Your task to perform on an android device: remove spam from my inbox in the gmail app Image 0: 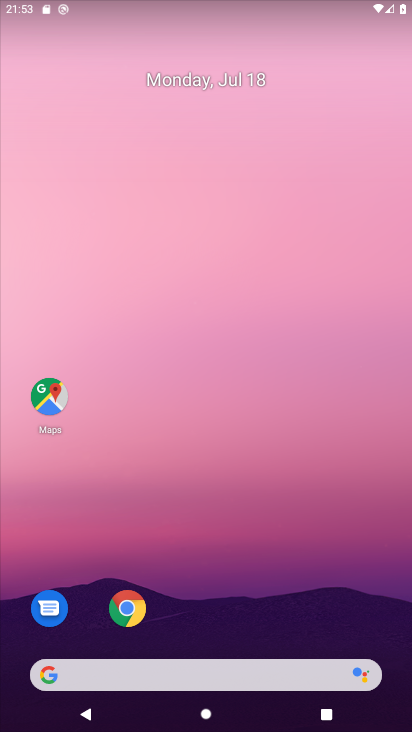
Step 0: drag from (157, 631) to (171, 186)
Your task to perform on an android device: remove spam from my inbox in the gmail app Image 1: 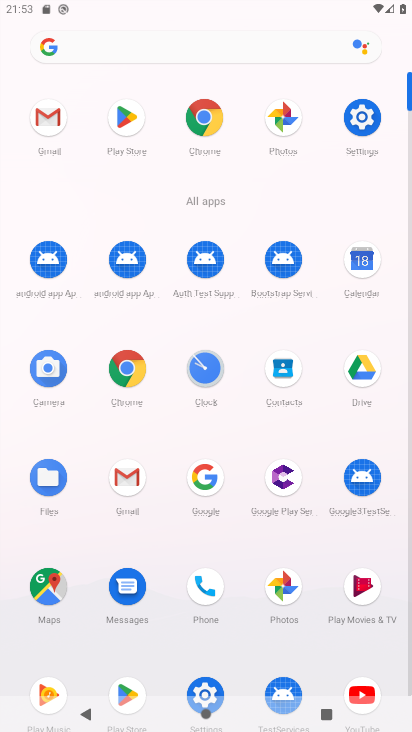
Step 1: click (122, 486)
Your task to perform on an android device: remove spam from my inbox in the gmail app Image 2: 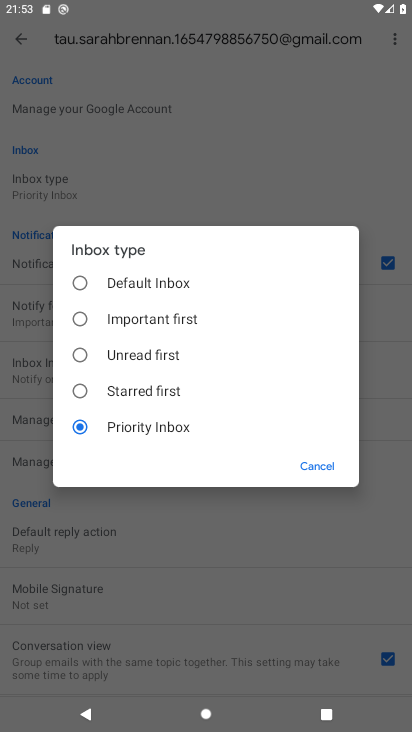
Step 2: press back button
Your task to perform on an android device: remove spam from my inbox in the gmail app Image 3: 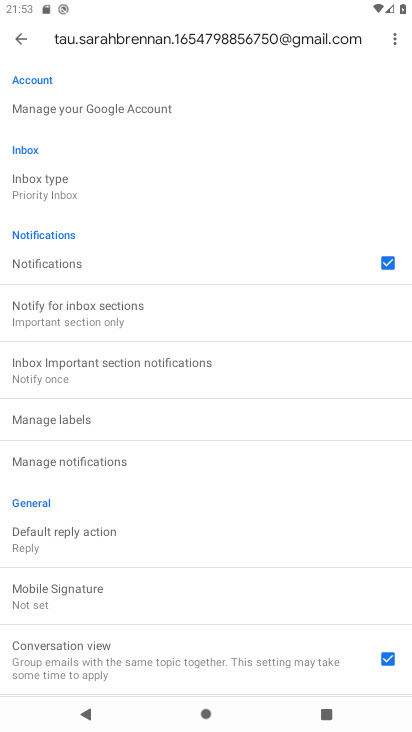
Step 3: press back button
Your task to perform on an android device: remove spam from my inbox in the gmail app Image 4: 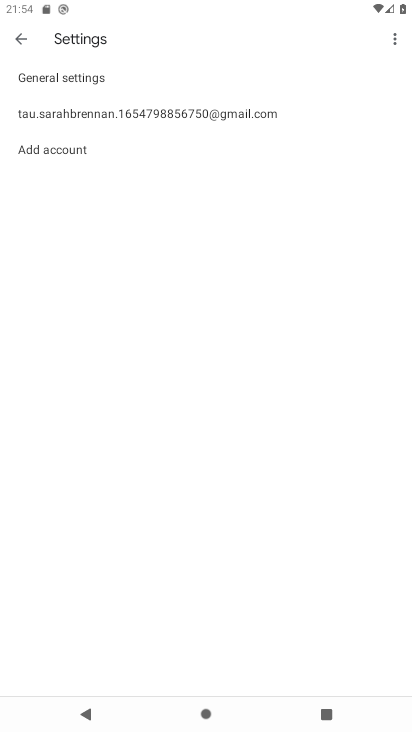
Step 4: press back button
Your task to perform on an android device: remove spam from my inbox in the gmail app Image 5: 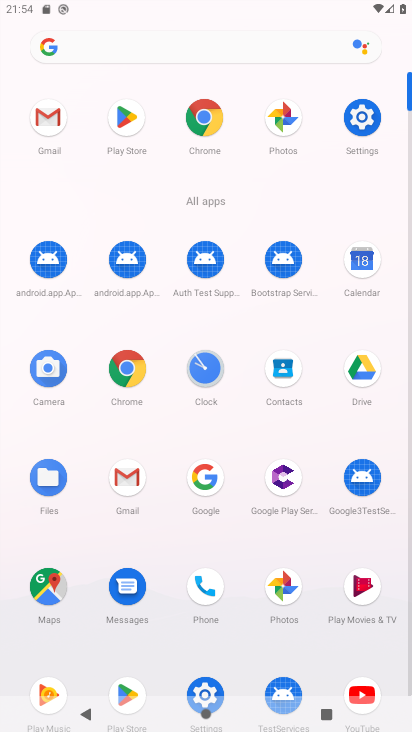
Step 5: click (130, 496)
Your task to perform on an android device: remove spam from my inbox in the gmail app Image 6: 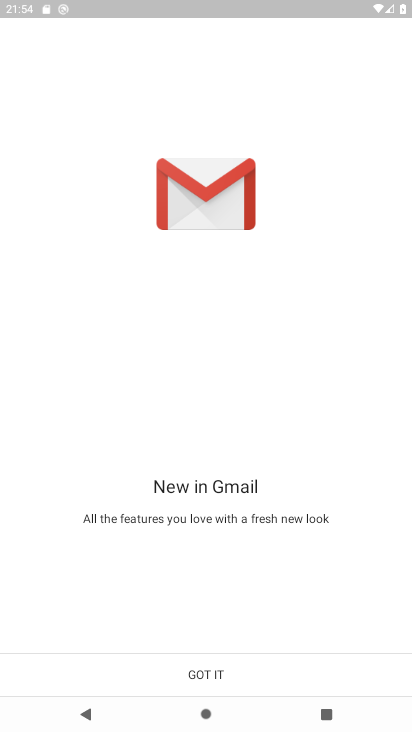
Step 6: click (236, 660)
Your task to perform on an android device: remove spam from my inbox in the gmail app Image 7: 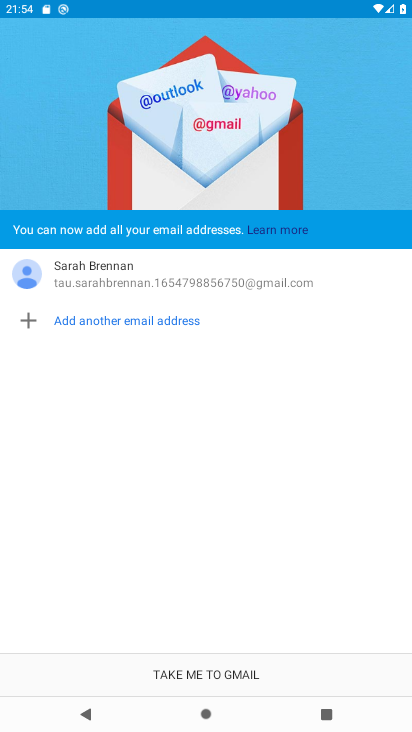
Step 7: click (253, 654)
Your task to perform on an android device: remove spam from my inbox in the gmail app Image 8: 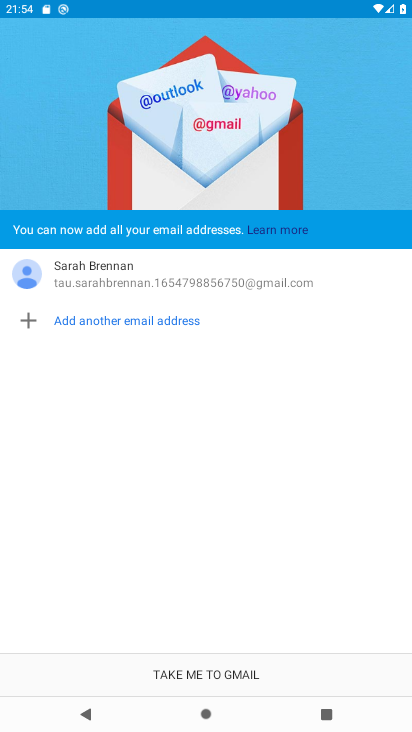
Step 8: click (253, 671)
Your task to perform on an android device: remove spam from my inbox in the gmail app Image 9: 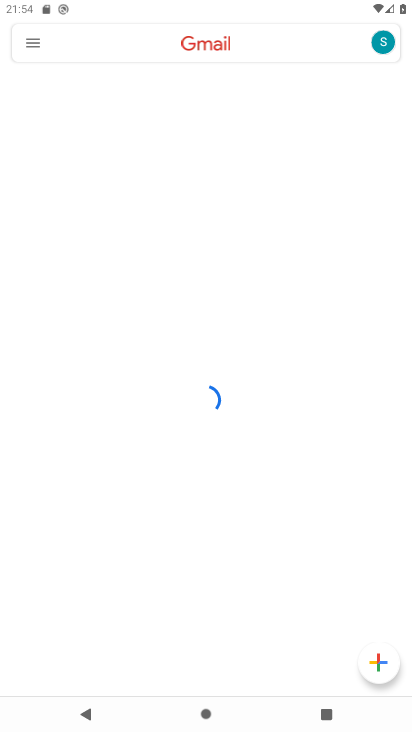
Step 9: click (41, 49)
Your task to perform on an android device: remove spam from my inbox in the gmail app Image 10: 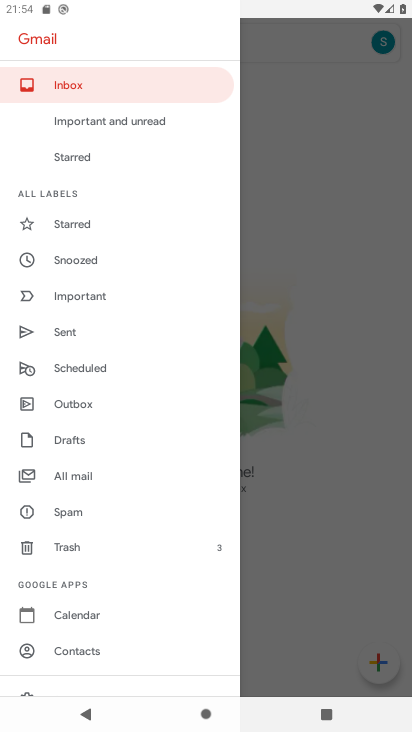
Step 10: click (75, 517)
Your task to perform on an android device: remove spam from my inbox in the gmail app Image 11: 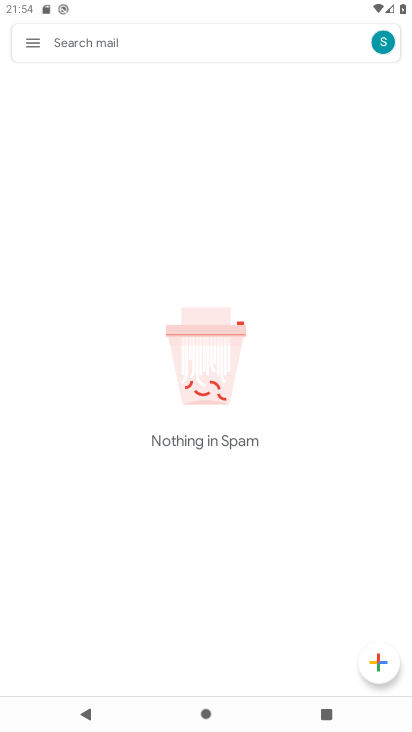
Step 11: task complete